Your task to perform on an android device: set default search engine in the chrome app Image 0: 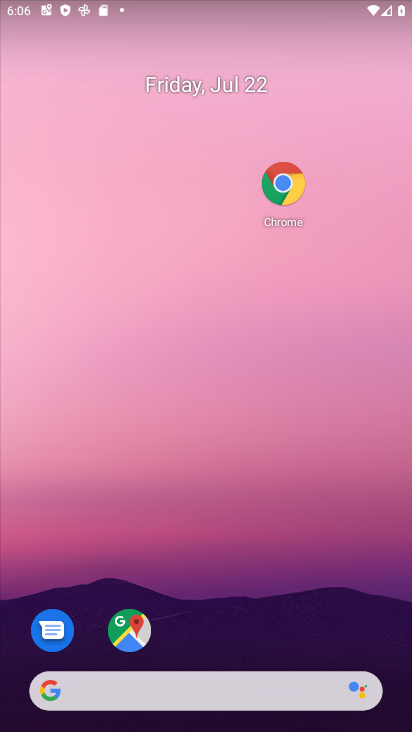
Step 0: click (289, 190)
Your task to perform on an android device: set default search engine in the chrome app Image 1: 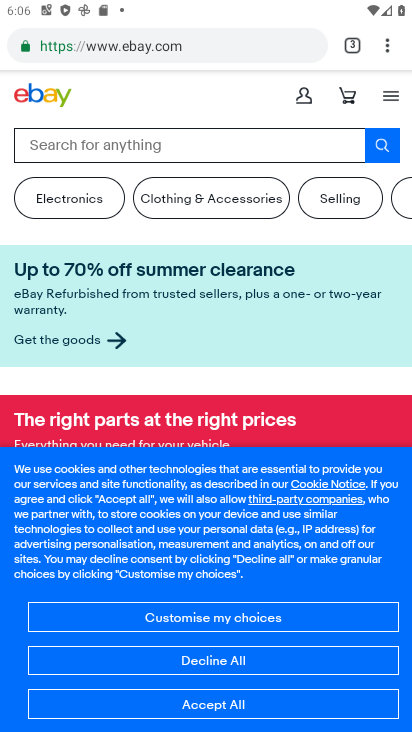
Step 1: click (385, 44)
Your task to perform on an android device: set default search engine in the chrome app Image 2: 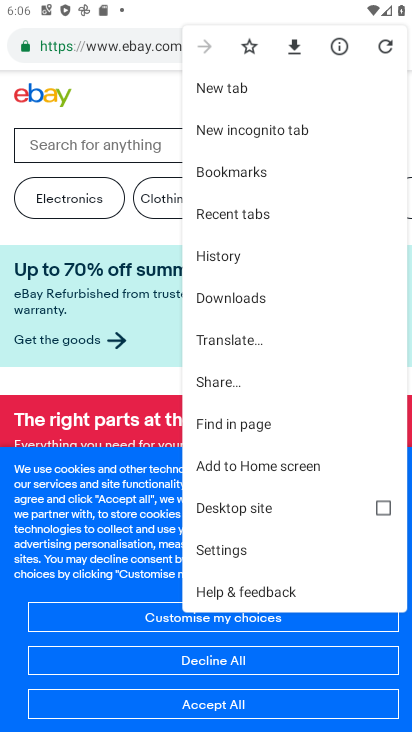
Step 2: click (242, 543)
Your task to perform on an android device: set default search engine in the chrome app Image 3: 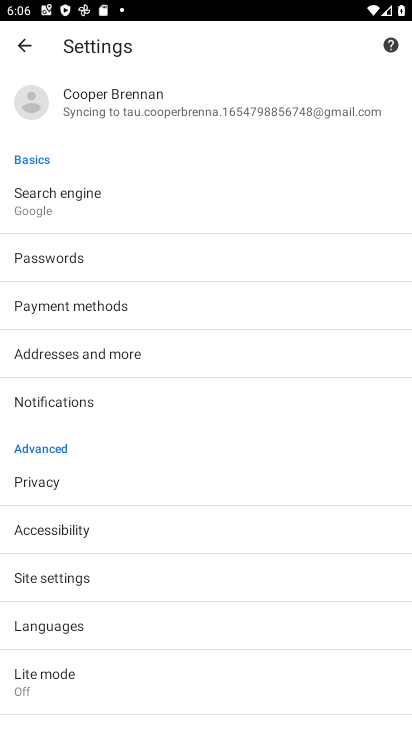
Step 3: click (21, 209)
Your task to perform on an android device: set default search engine in the chrome app Image 4: 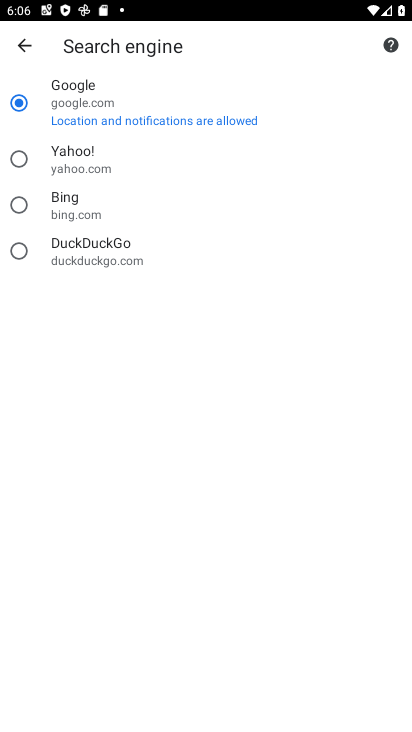
Step 4: click (14, 154)
Your task to perform on an android device: set default search engine in the chrome app Image 5: 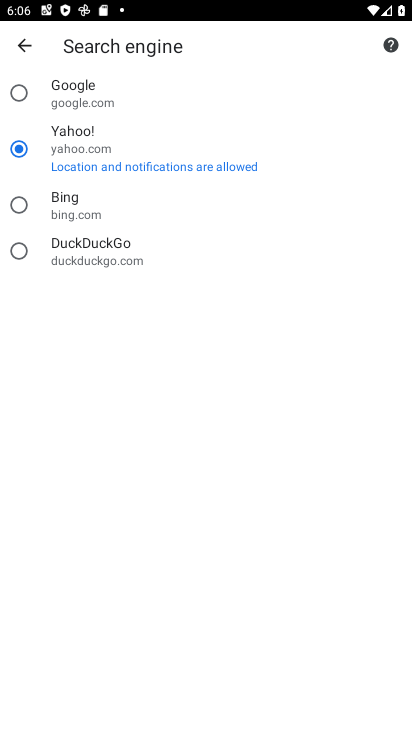
Step 5: task complete